Your task to perform on an android device: How do I get to the nearest Walmart? Image 0: 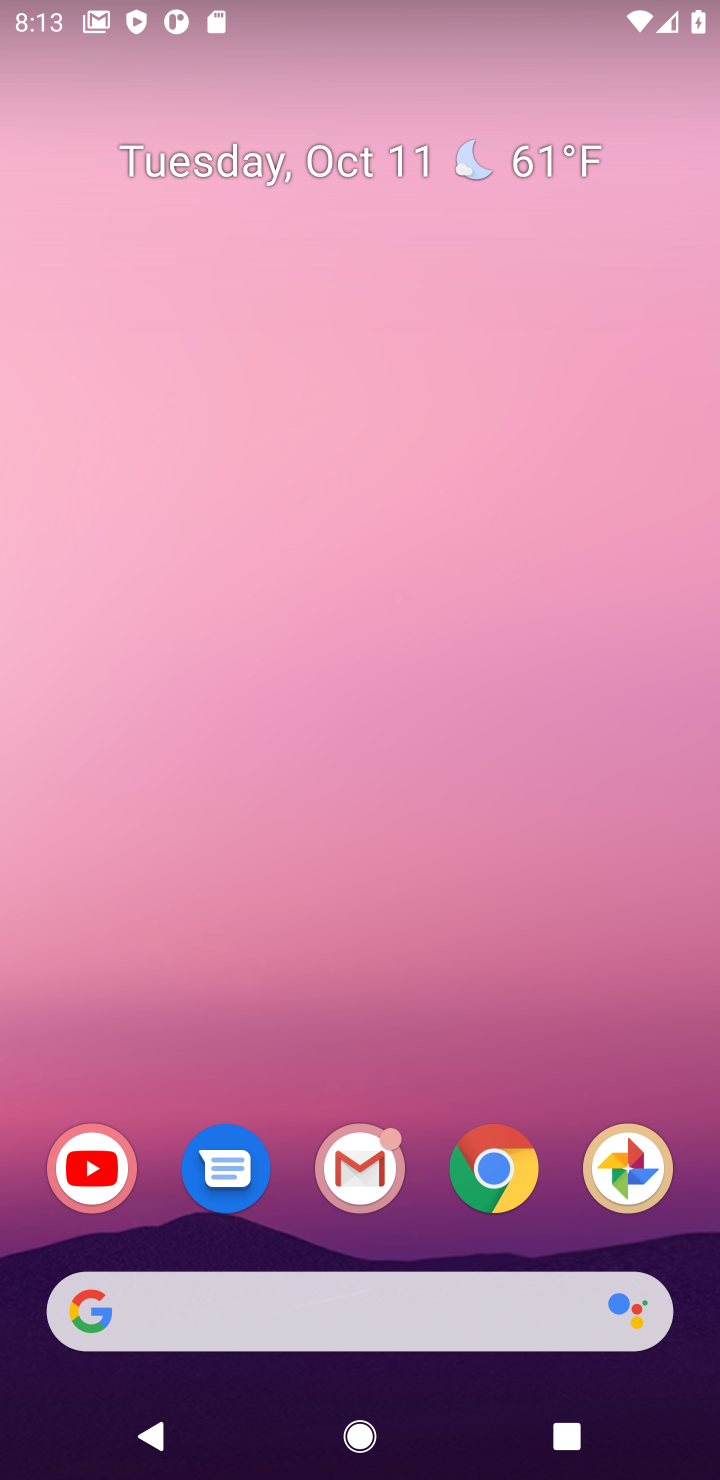
Step 0: click (468, 1195)
Your task to perform on an android device: How do I get to the nearest Walmart? Image 1: 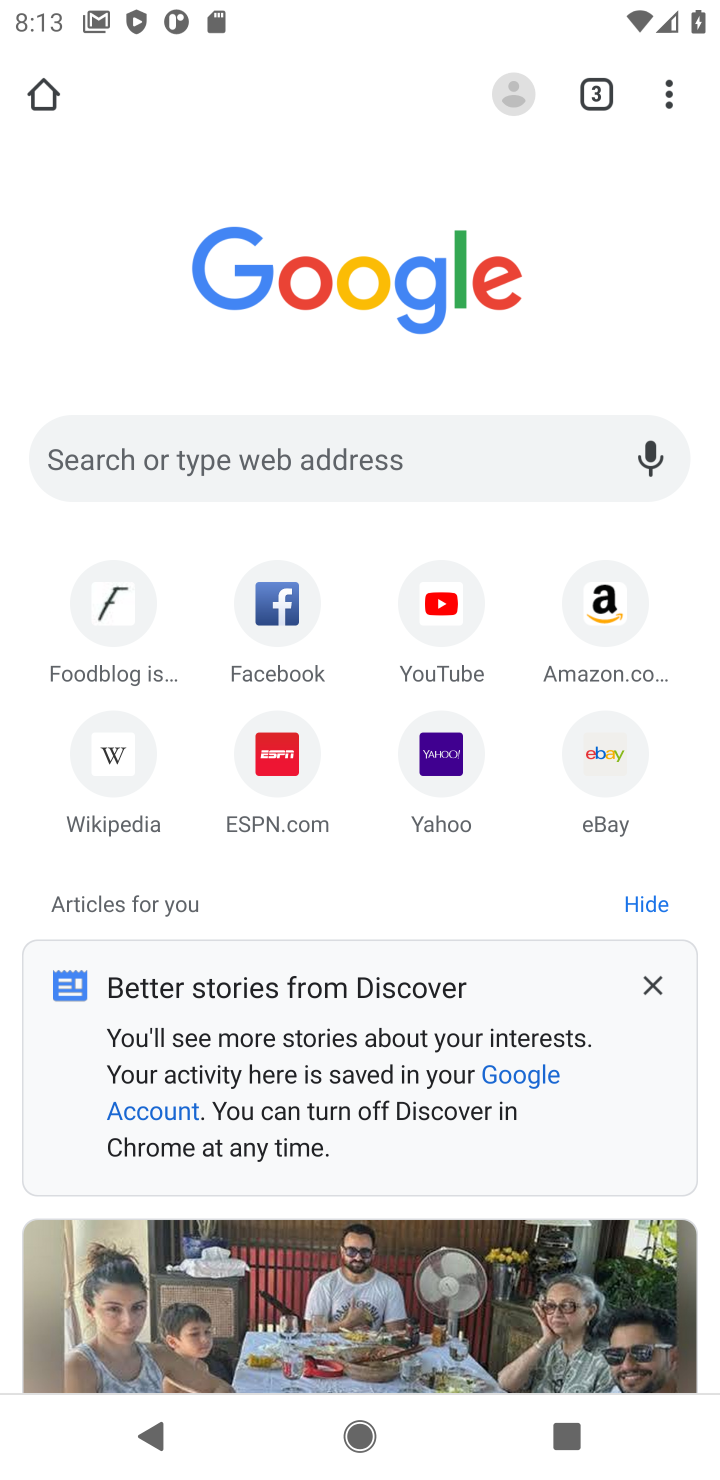
Step 1: click (318, 441)
Your task to perform on an android device: How do I get to the nearest Walmart? Image 2: 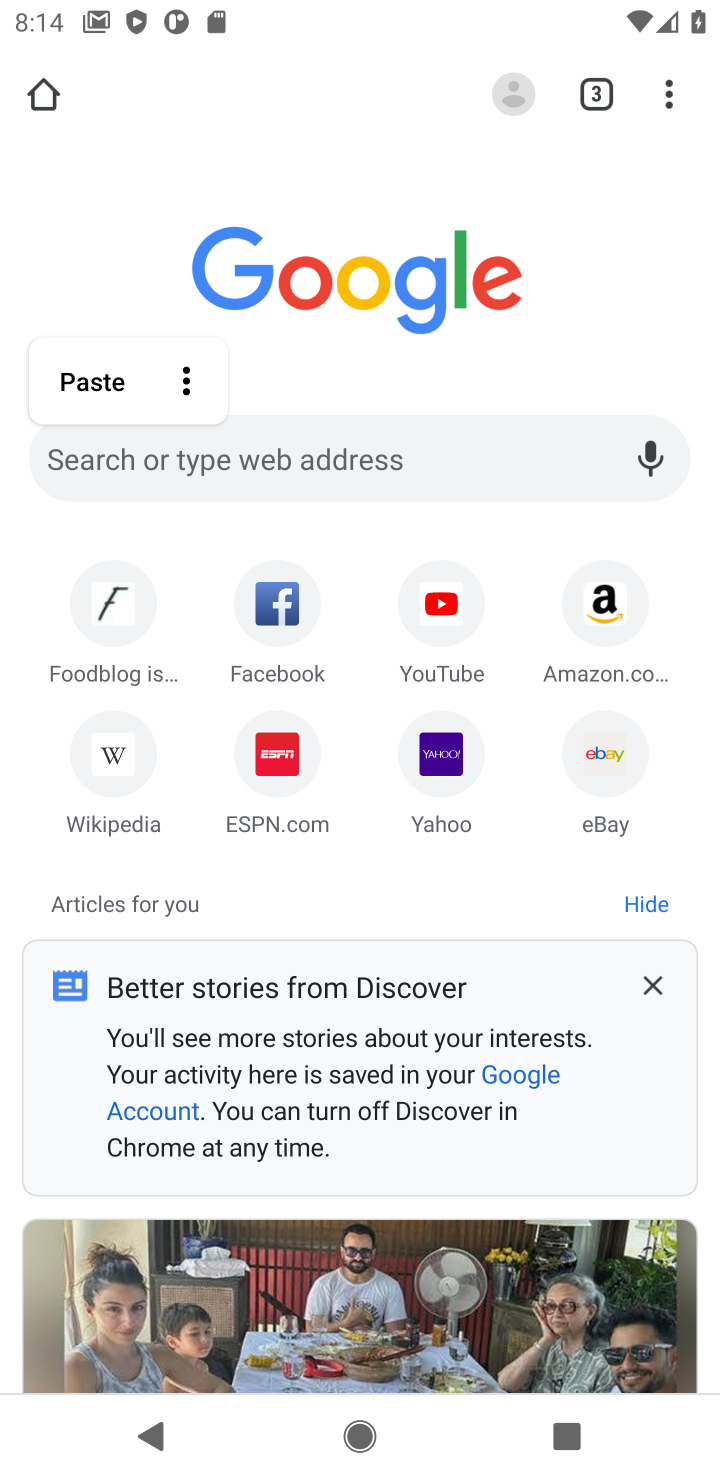
Step 2: type "how do i get to the nearest walmart"
Your task to perform on an android device: How do I get to the nearest Walmart? Image 3: 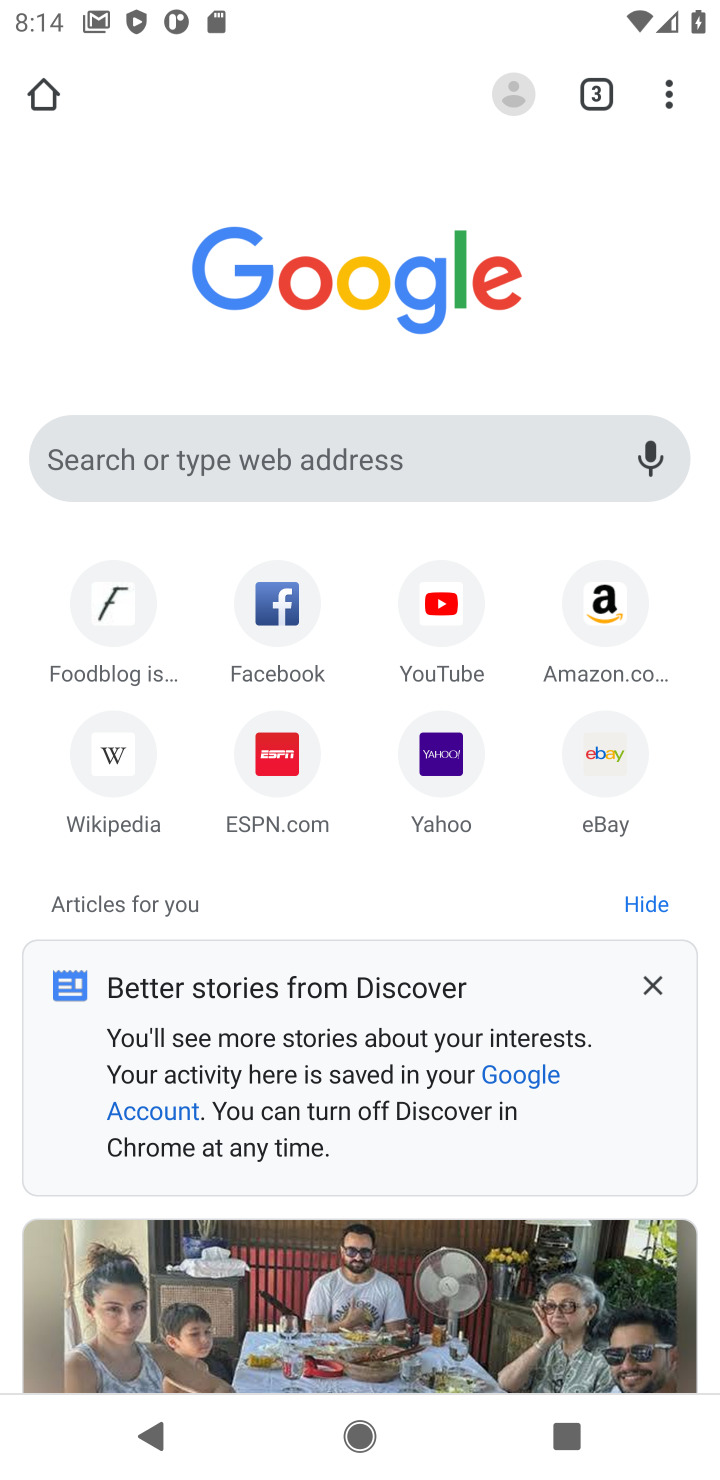
Step 3: click (385, 437)
Your task to perform on an android device: How do I get to the nearest Walmart? Image 4: 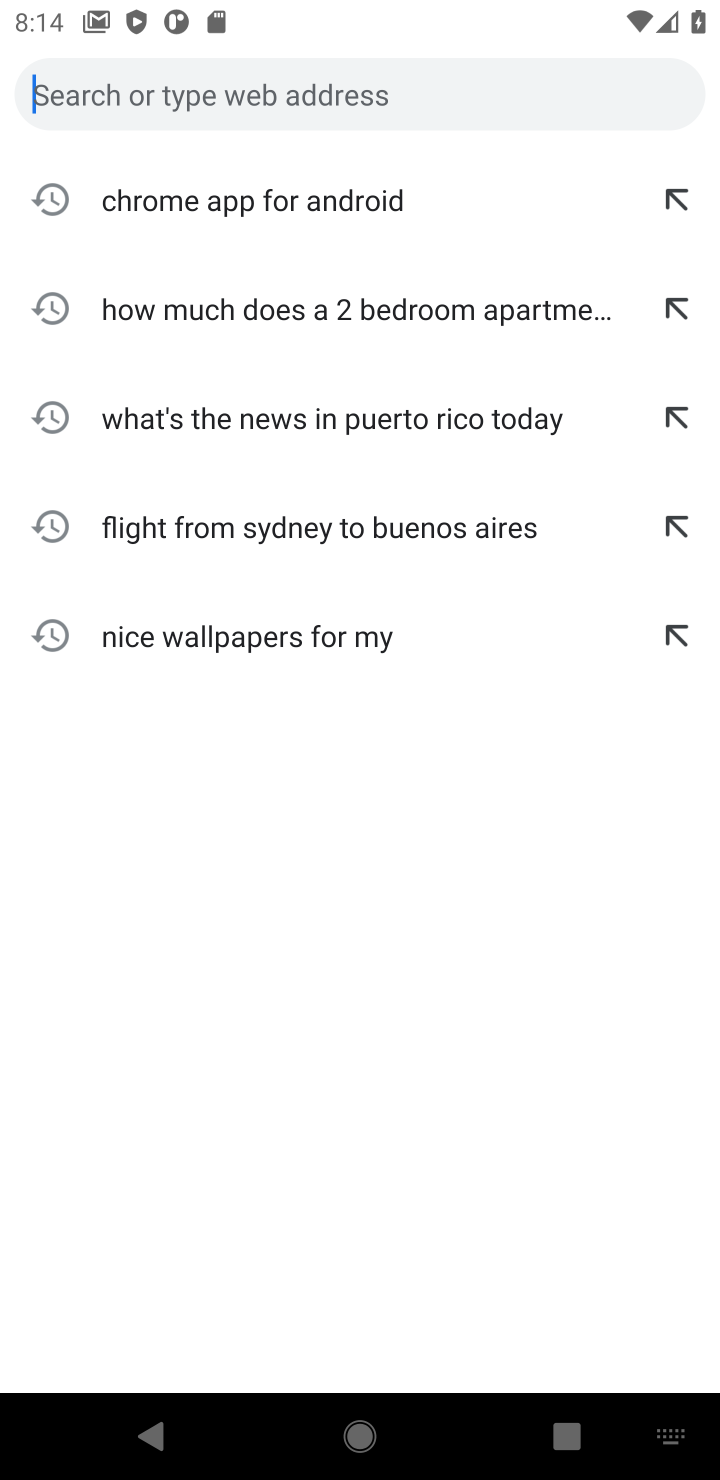
Step 4: type "nearest walmart"
Your task to perform on an android device: How do I get to the nearest Walmart? Image 5: 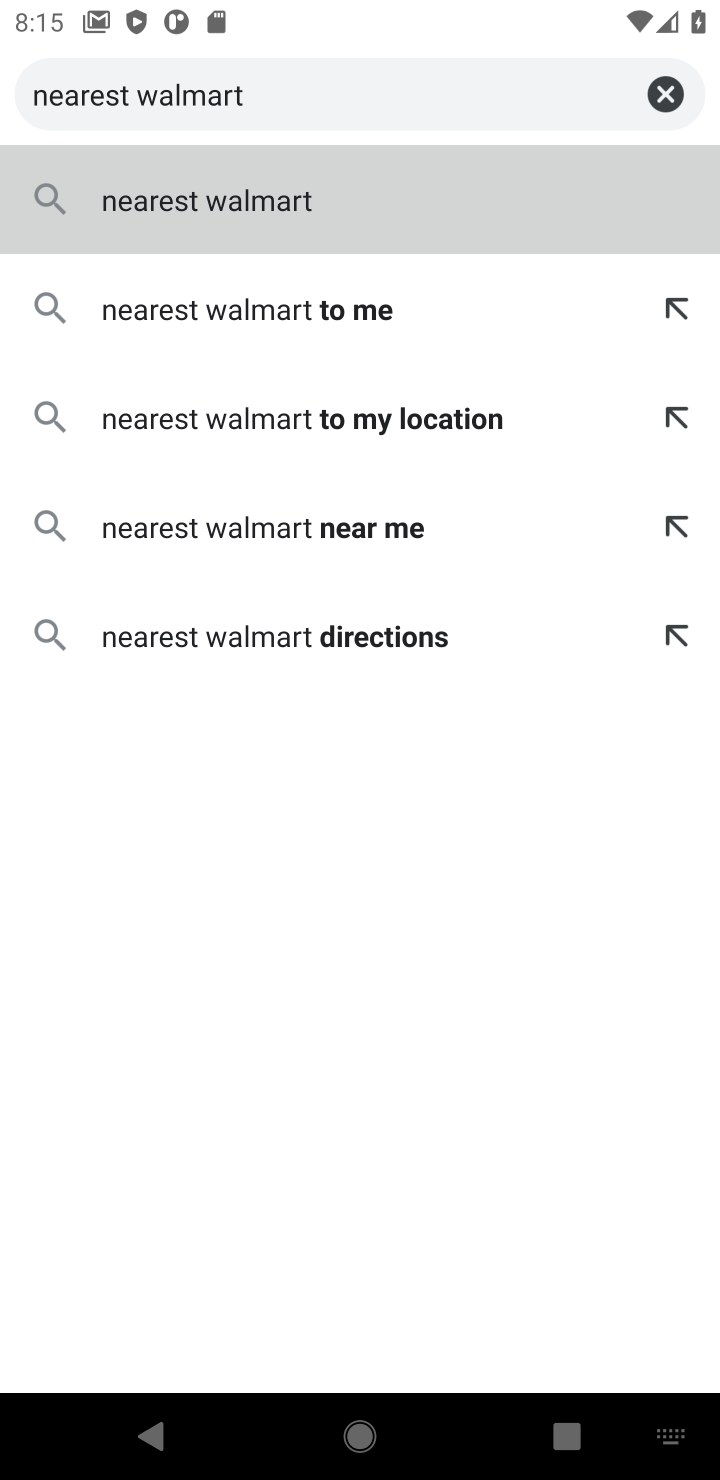
Step 5: click (225, 189)
Your task to perform on an android device: How do I get to the nearest Walmart? Image 6: 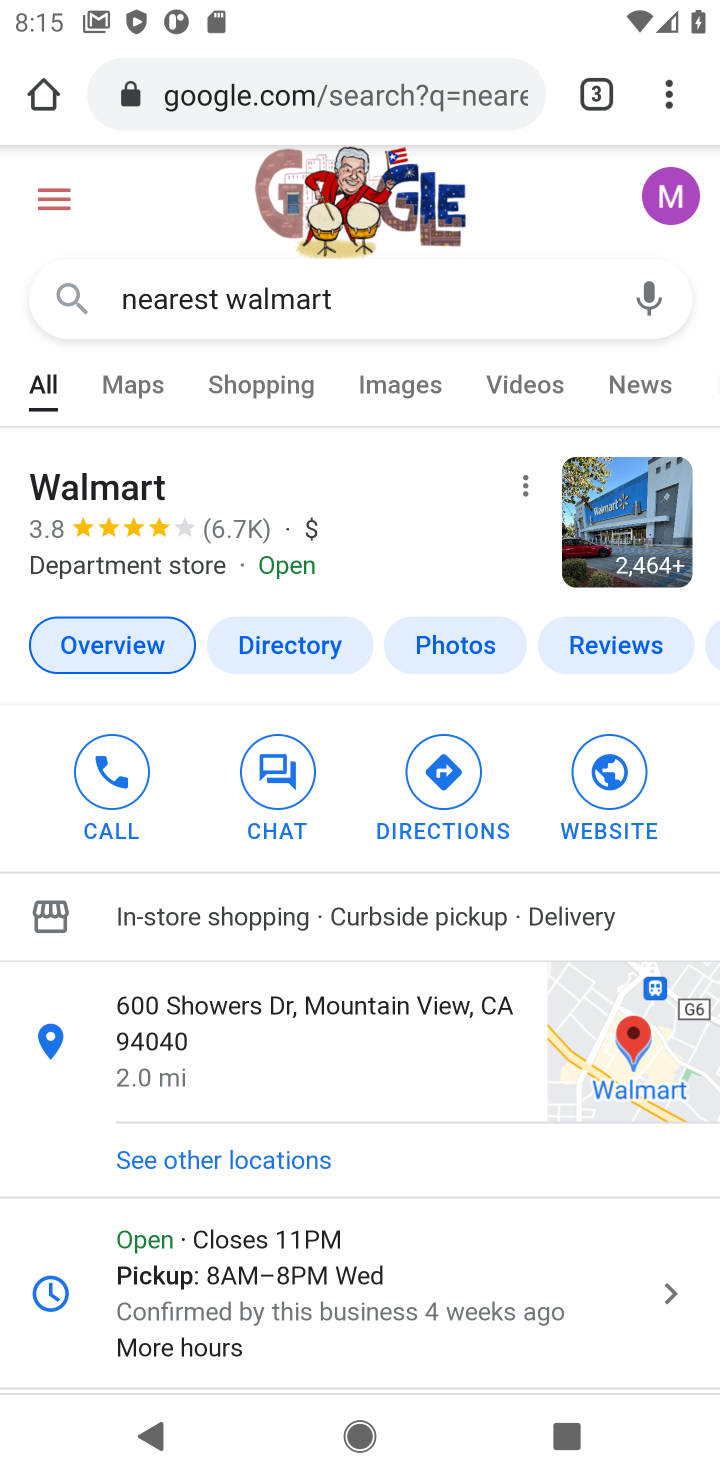
Step 6: drag from (353, 1090) to (391, 457)
Your task to perform on an android device: How do I get to the nearest Walmart? Image 7: 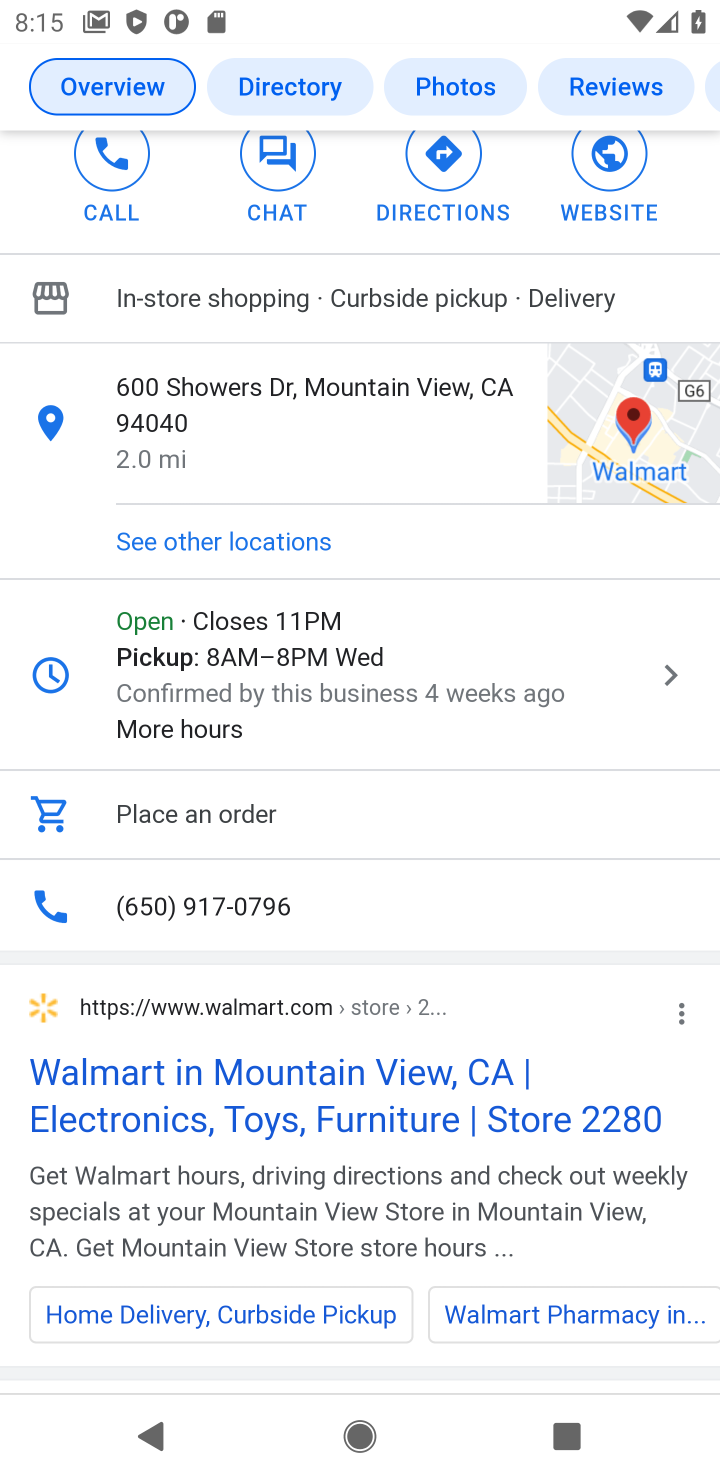
Step 7: drag from (413, 1160) to (435, 754)
Your task to perform on an android device: How do I get to the nearest Walmart? Image 8: 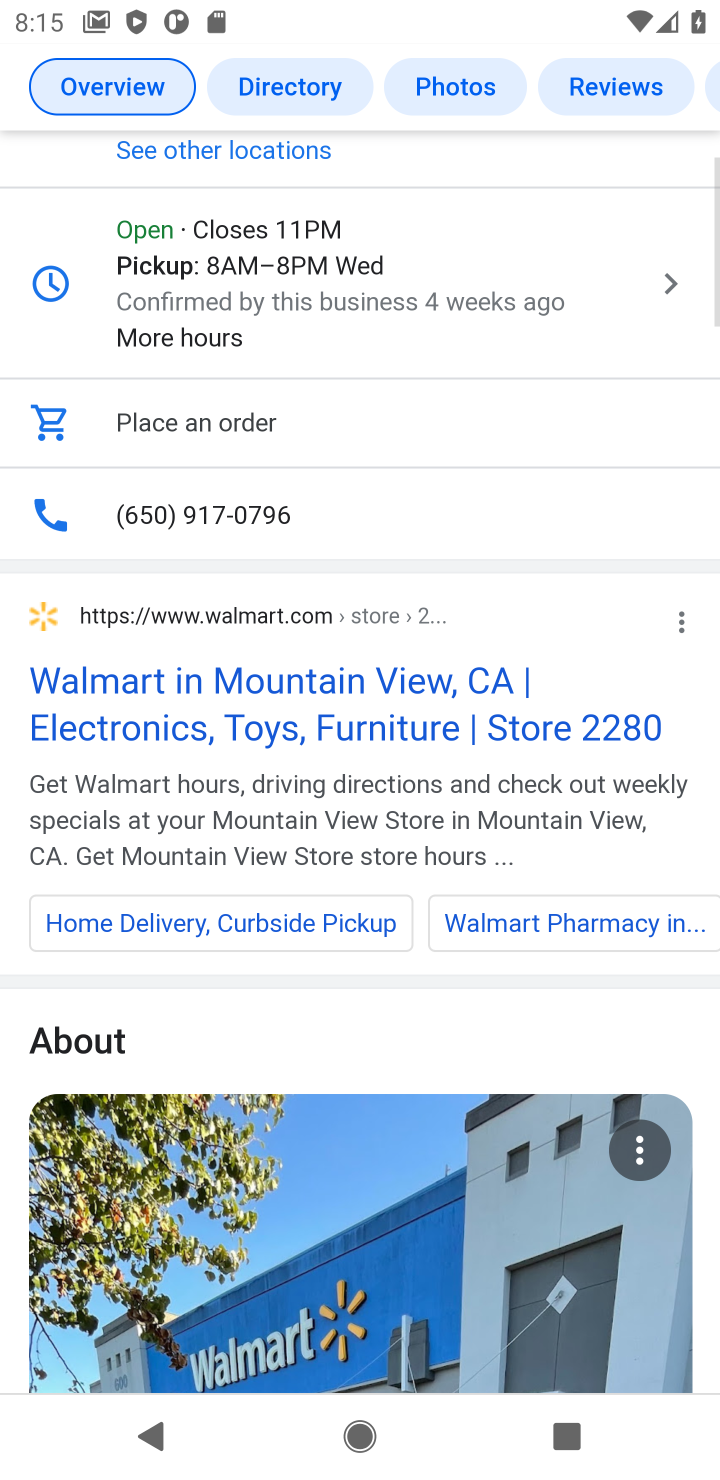
Step 8: drag from (210, 1175) to (288, 698)
Your task to perform on an android device: How do I get to the nearest Walmart? Image 9: 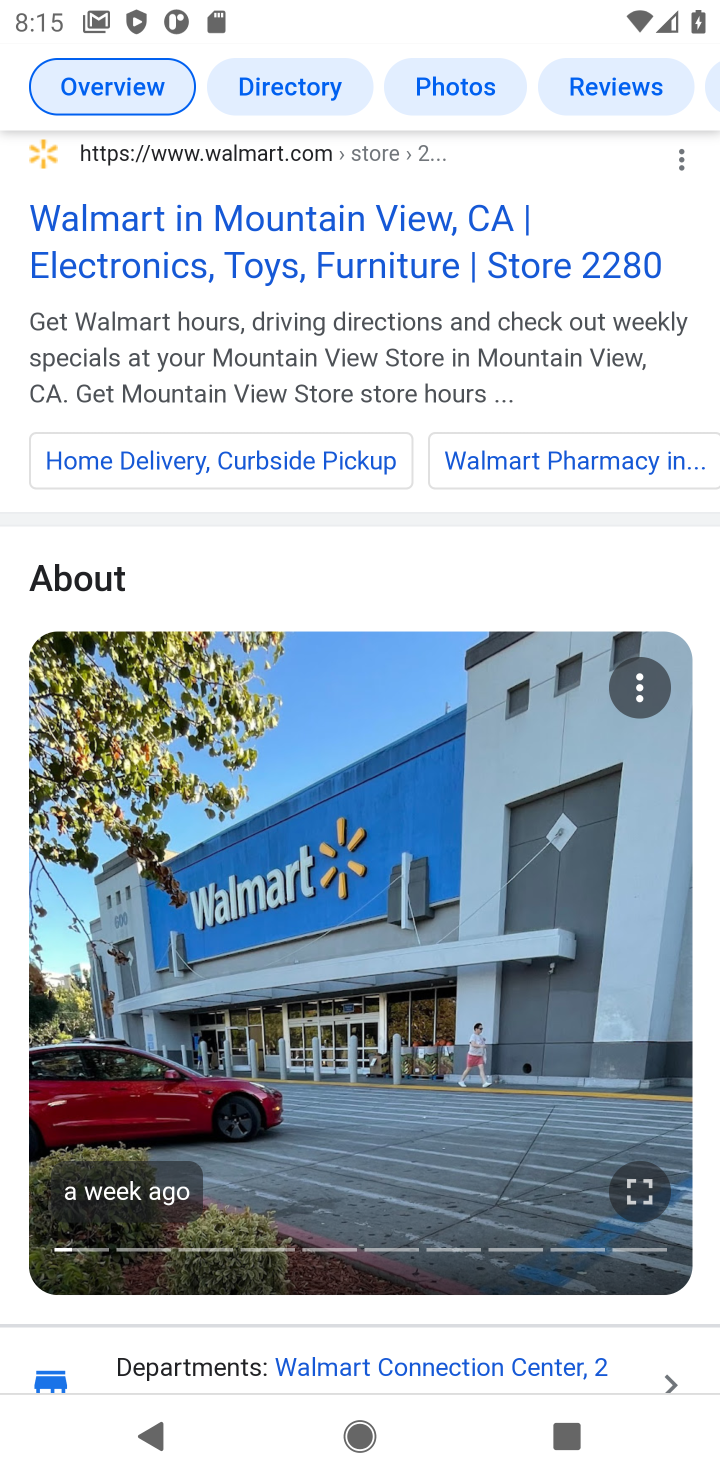
Step 9: drag from (372, 865) to (501, 571)
Your task to perform on an android device: How do I get to the nearest Walmart? Image 10: 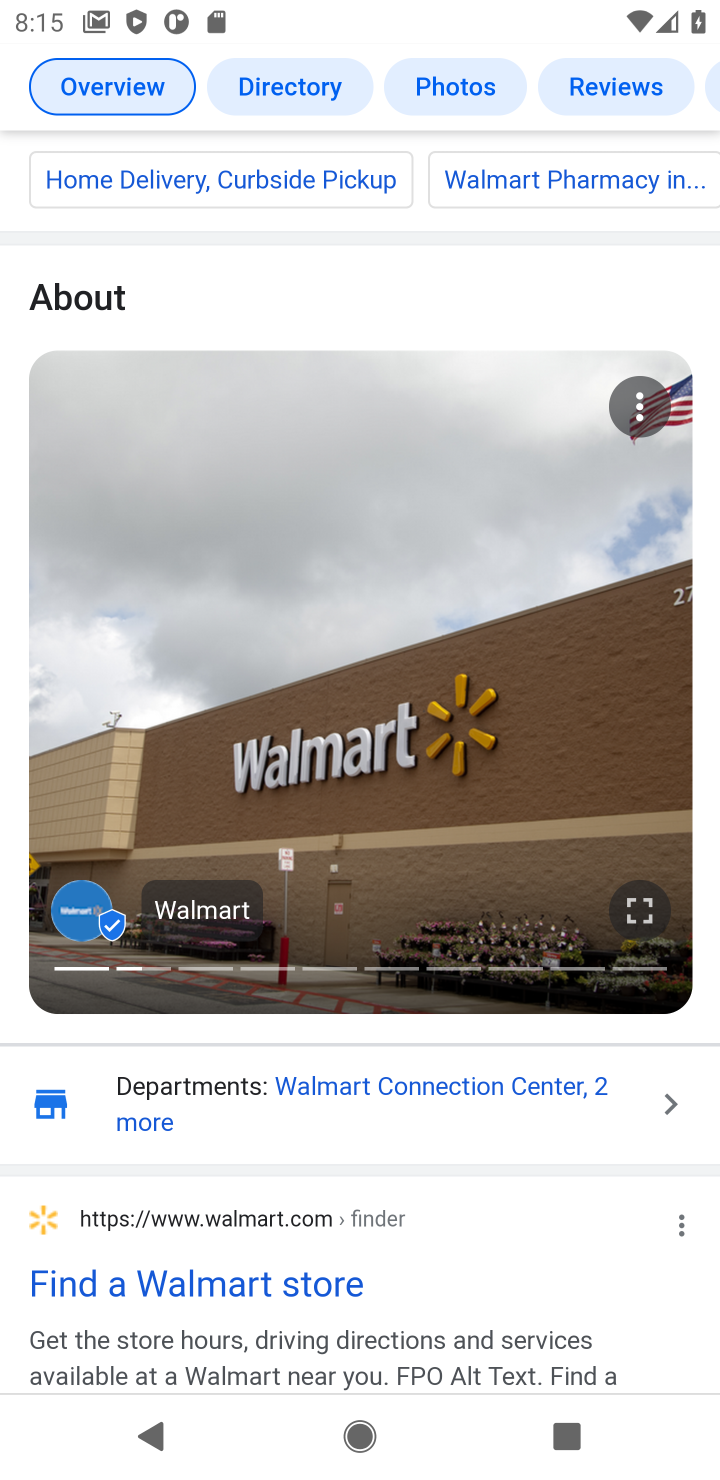
Step 10: drag from (478, 830) to (478, 581)
Your task to perform on an android device: How do I get to the nearest Walmart? Image 11: 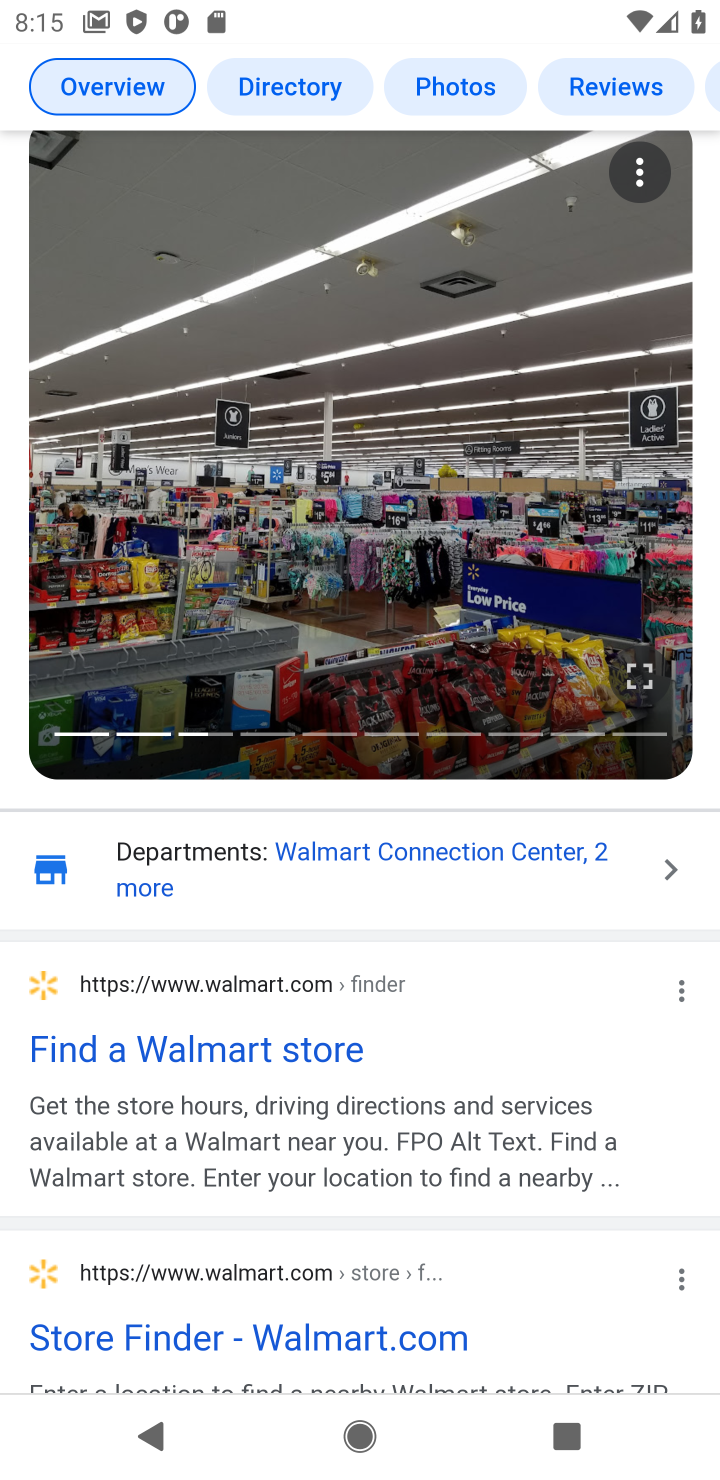
Step 11: drag from (230, 813) to (223, 624)
Your task to perform on an android device: How do I get to the nearest Walmart? Image 12: 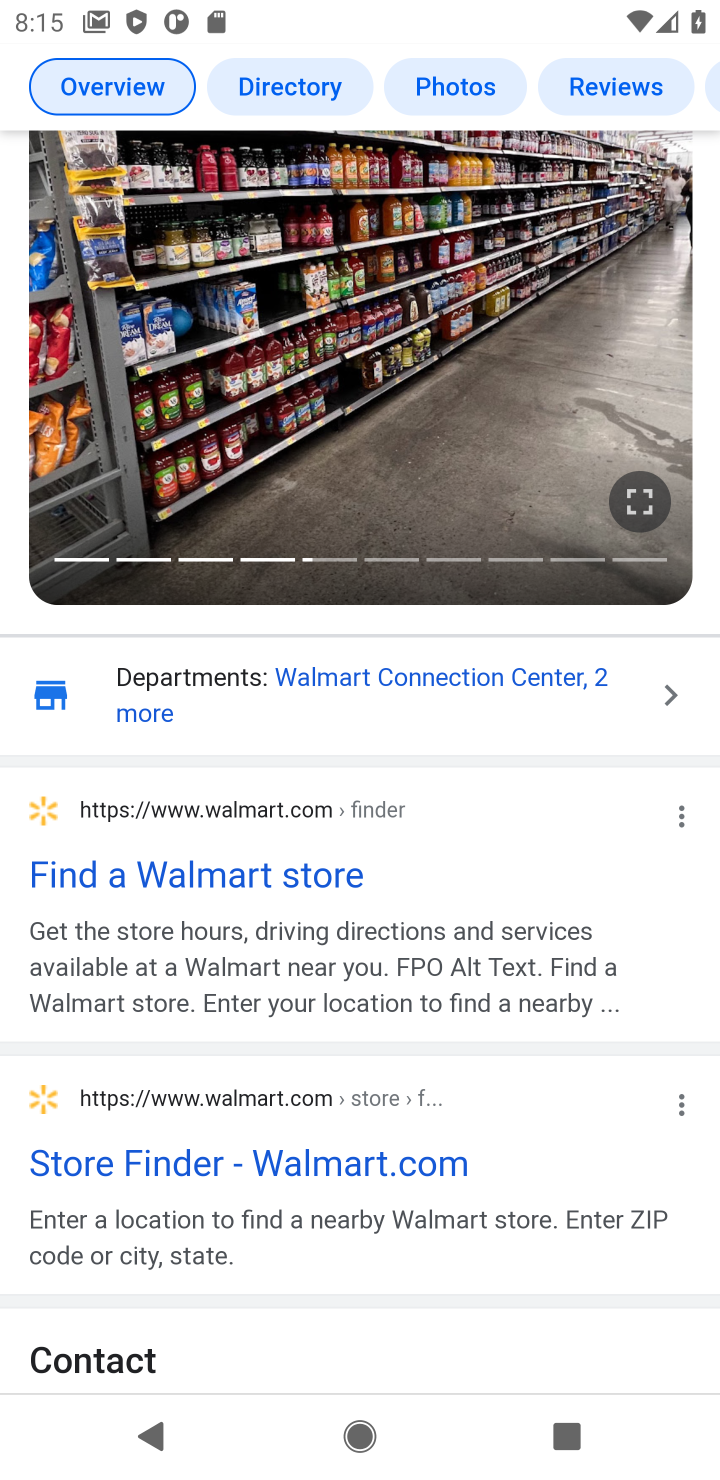
Step 12: click (275, 575)
Your task to perform on an android device: How do I get to the nearest Walmart? Image 13: 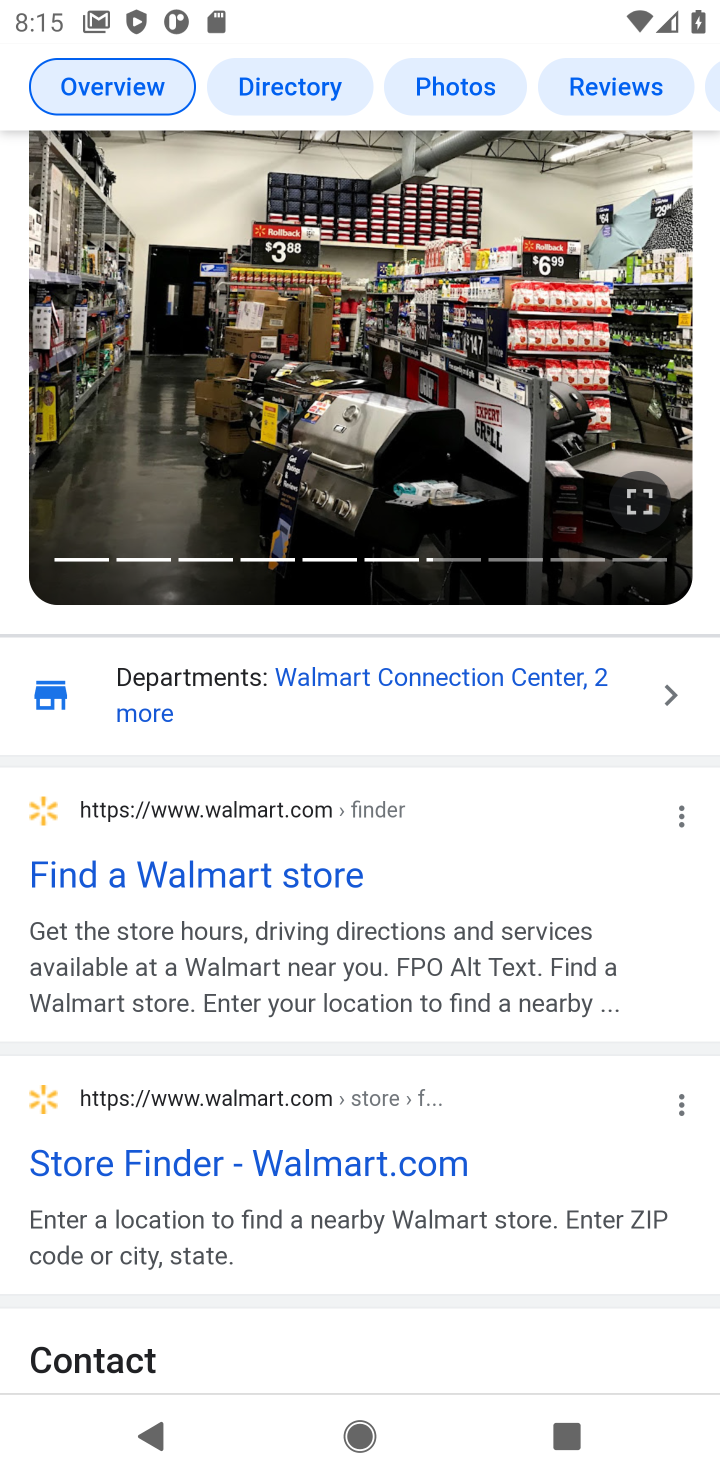
Step 13: drag from (201, 1091) to (251, 710)
Your task to perform on an android device: How do I get to the nearest Walmart? Image 14: 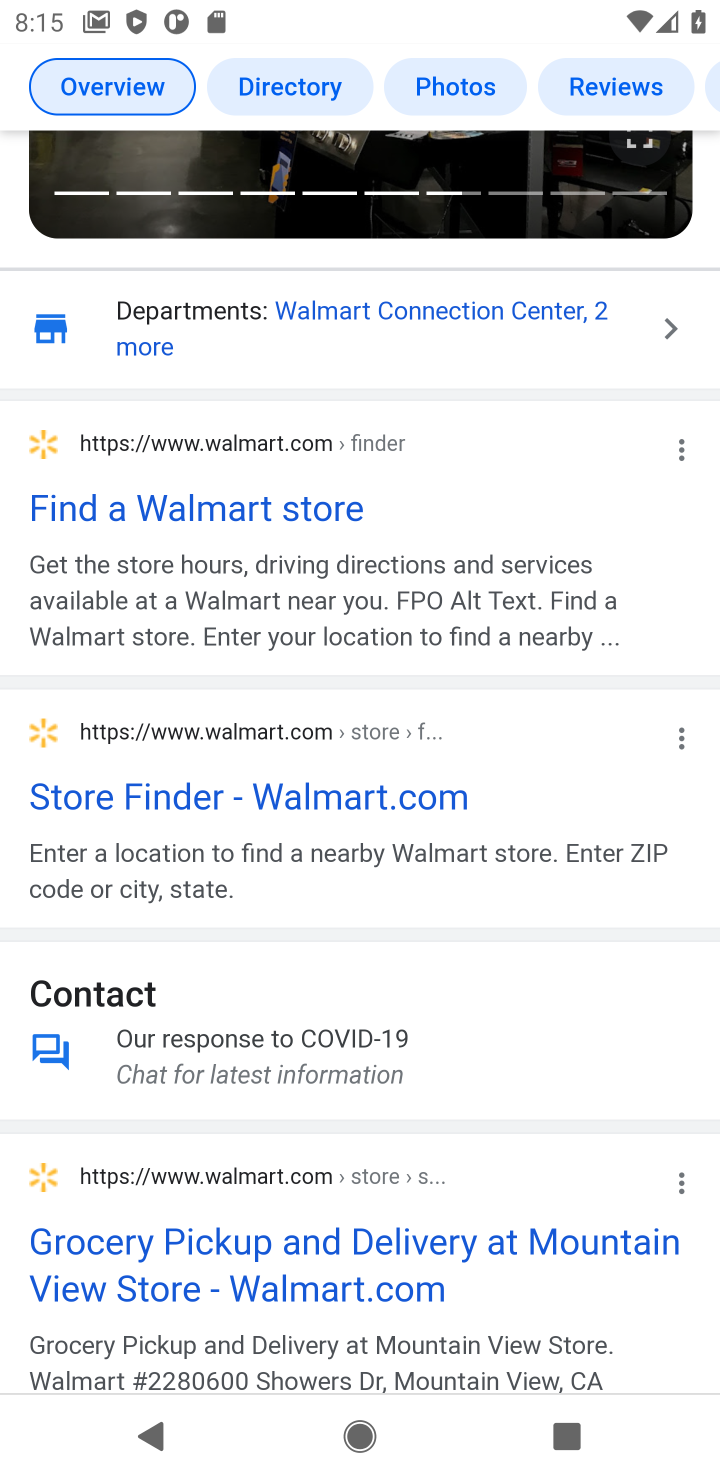
Step 14: click (199, 512)
Your task to perform on an android device: How do I get to the nearest Walmart? Image 15: 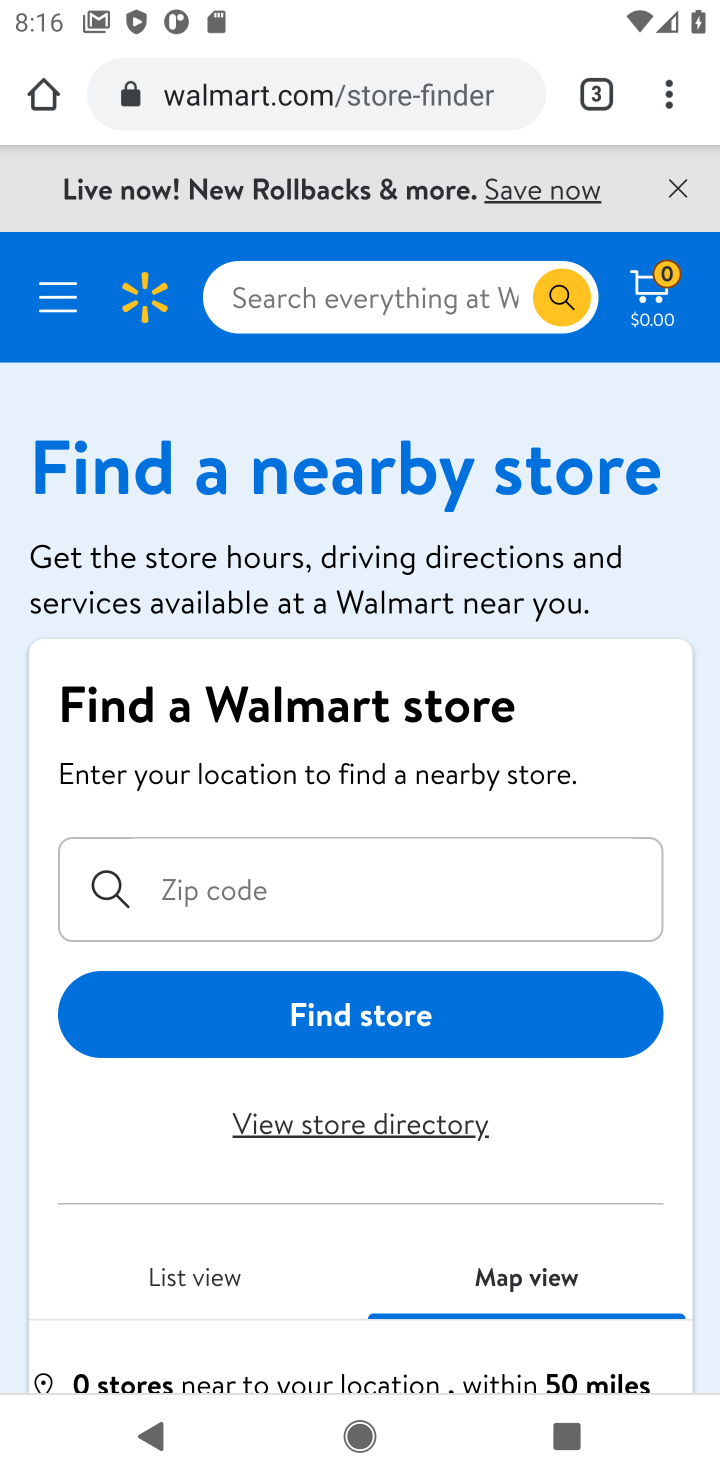
Step 15: drag from (178, 1146) to (187, 428)
Your task to perform on an android device: How do I get to the nearest Walmart? Image 16: 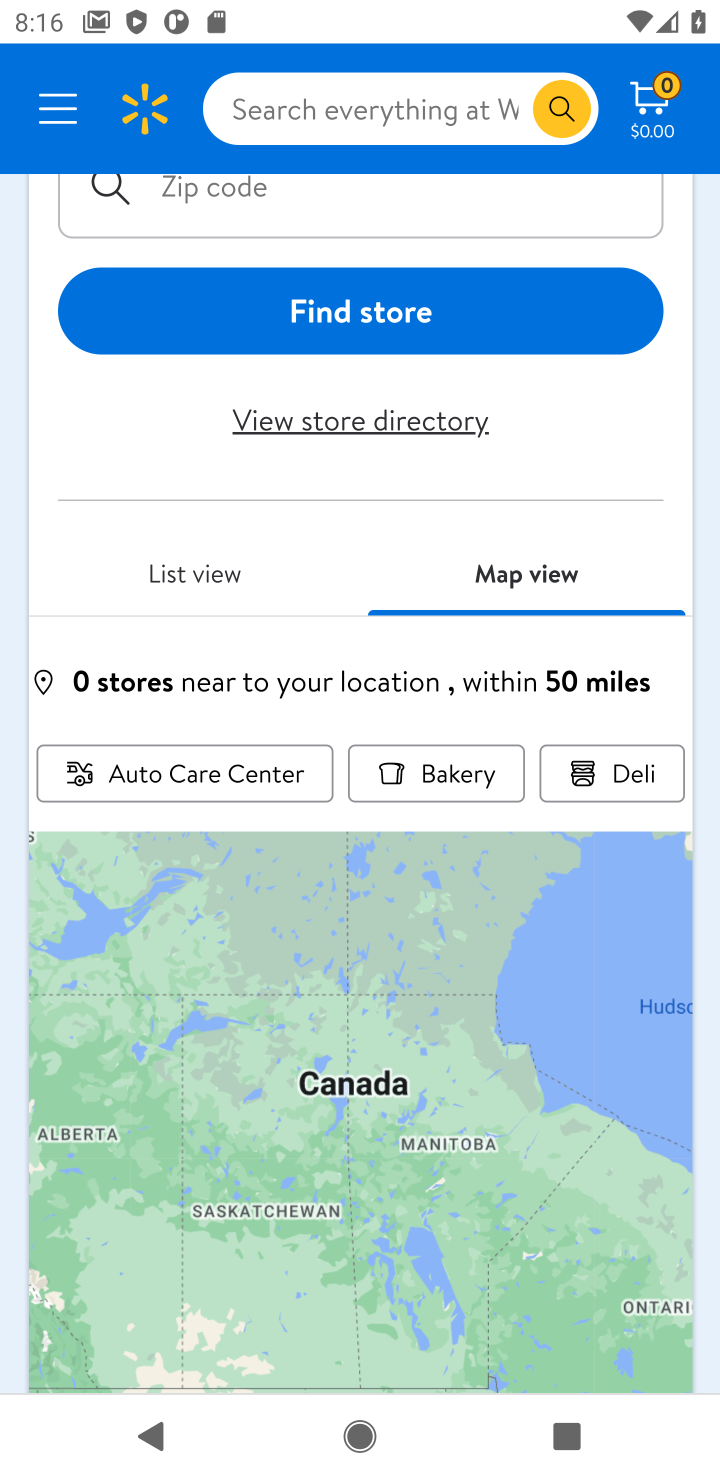
Step 16: drag from (192, 1046) to (219, 567)
Your task to perform on an android device: How do I get to the nearest Walmart? Image 17: 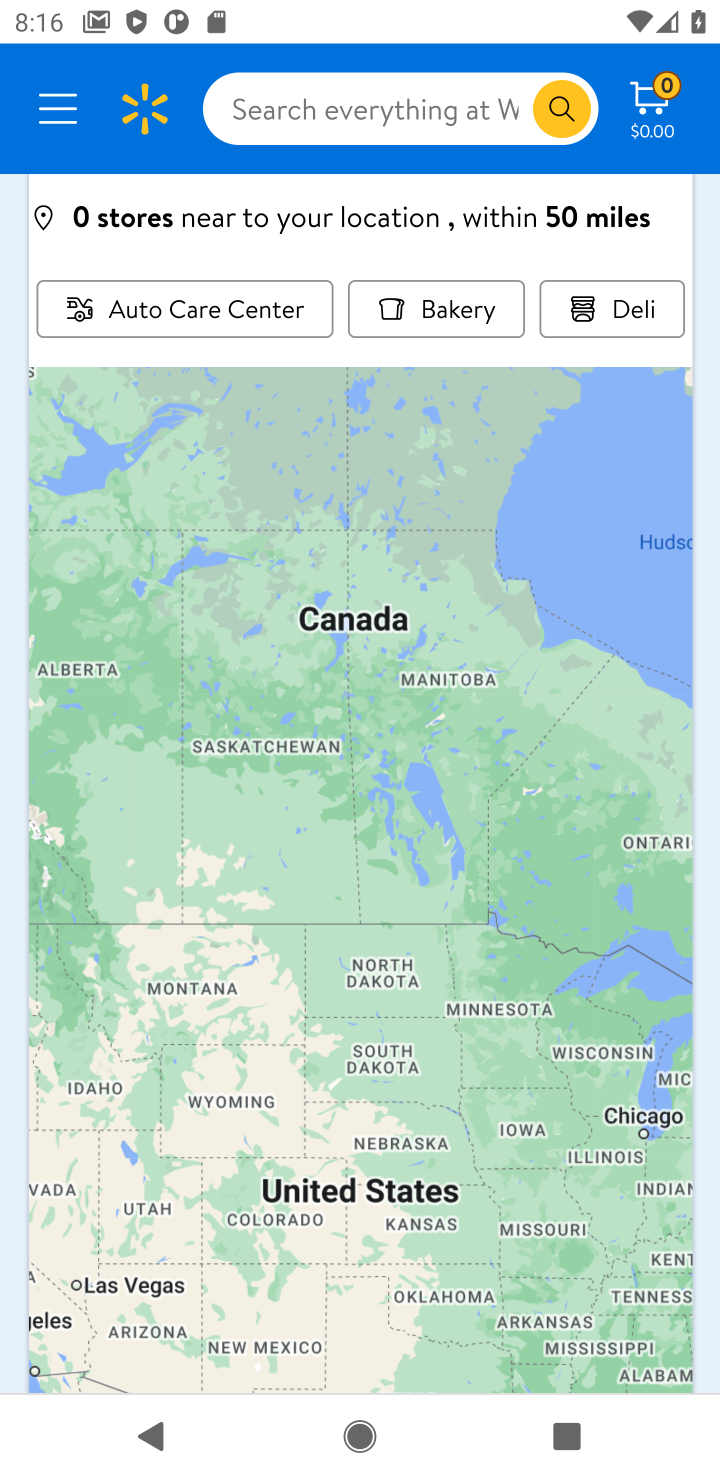
Step 17: drag from (327, 993) to (320, 723)
Your task to perform on an android device: How do I get to the nearest Walmart? Image 18: 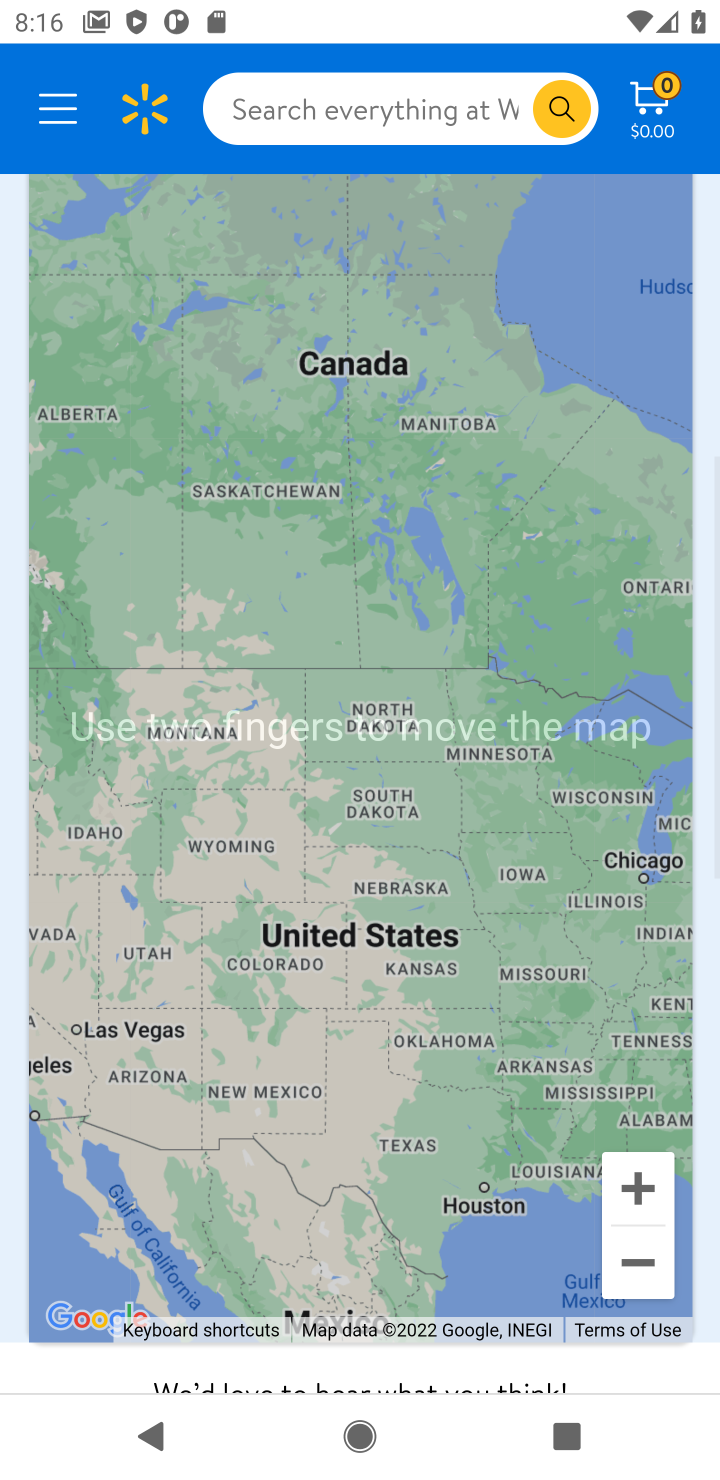
Step 18: click (438, 457)
Your task to perform on an android device: How do I get to the nearest Walmart? Image 19: 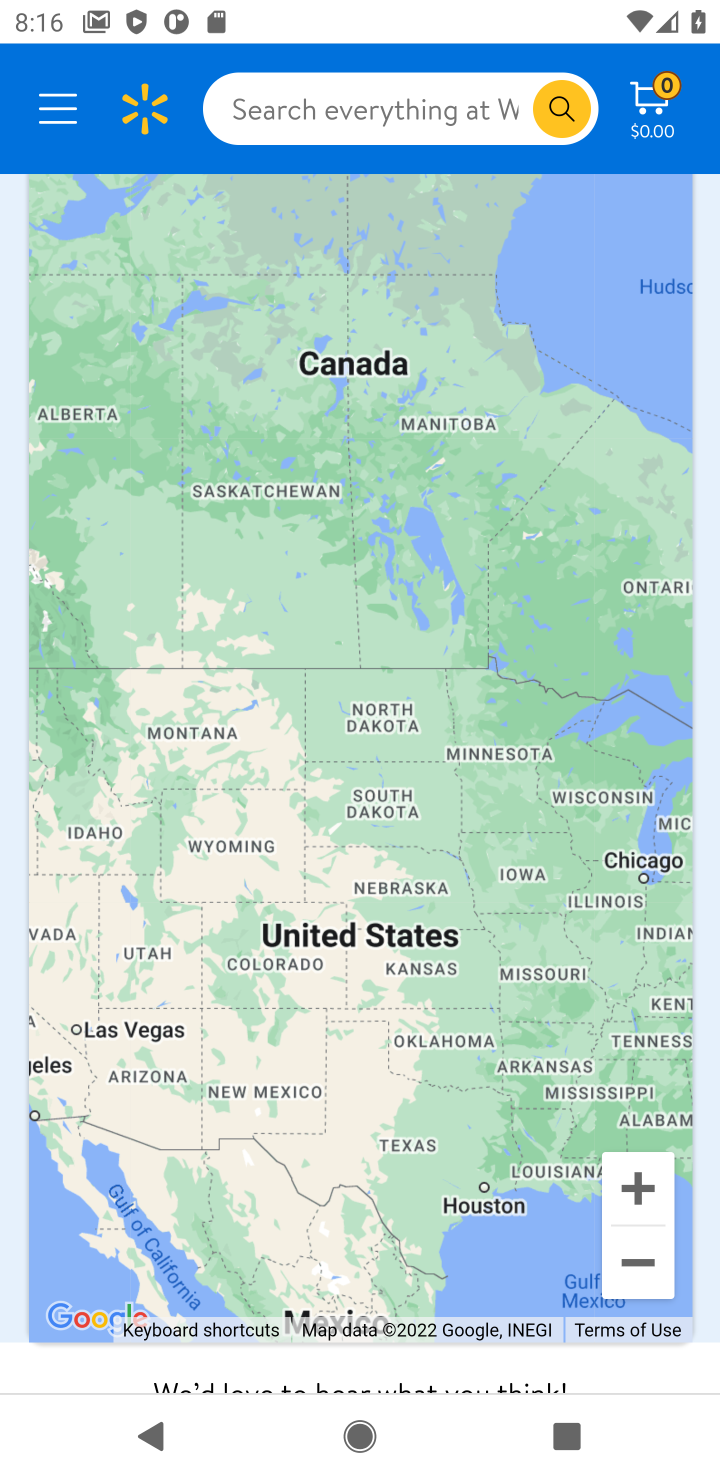
Step 19: task complete